Your task to perform on an android device: change keyboard looks Image 0: 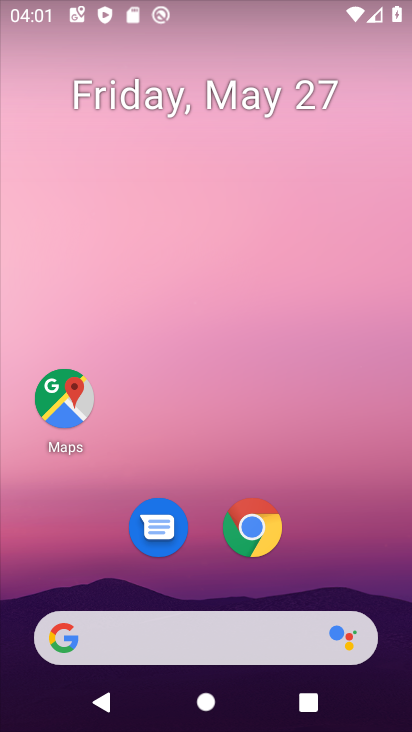
Step 0: drag from (353, 552) to (338, 88)
Your task to perform on an android device: change keyboard looks Image 1: 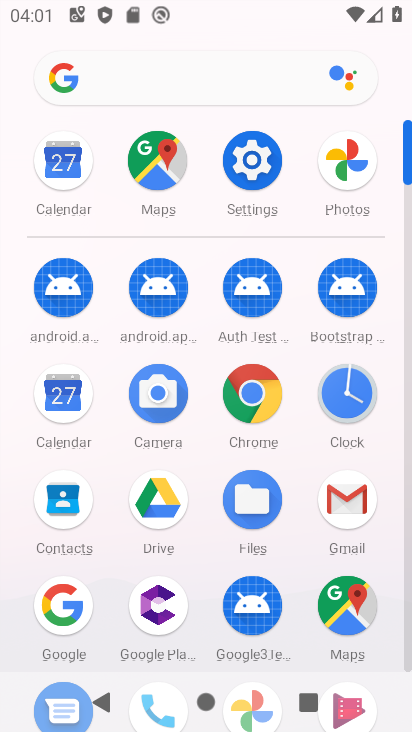
Step 1: click (410, 663)
Your task to perform on an android device: change keyboard looks Image 2: 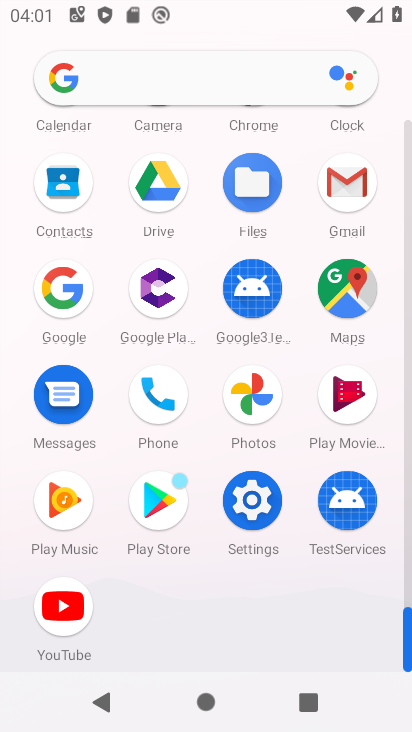
Step 2: click (251, 502)
Your task to perform on an android device: change keyboard looks Image 3: 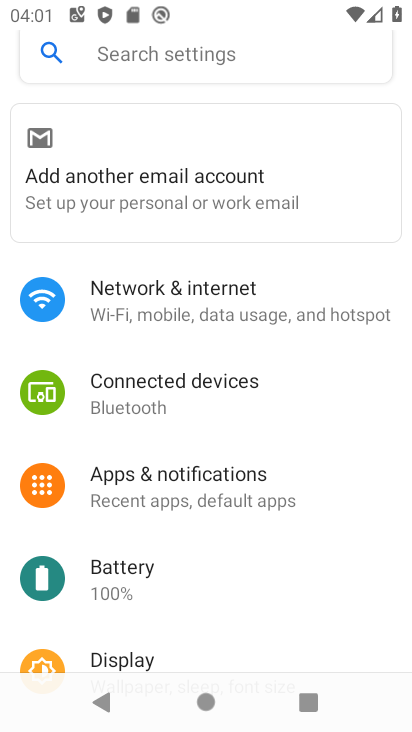
Step 3: drag from (226, 631) to (225, 19)
Your task to perform on an android device: change keyboard looks Image 4: 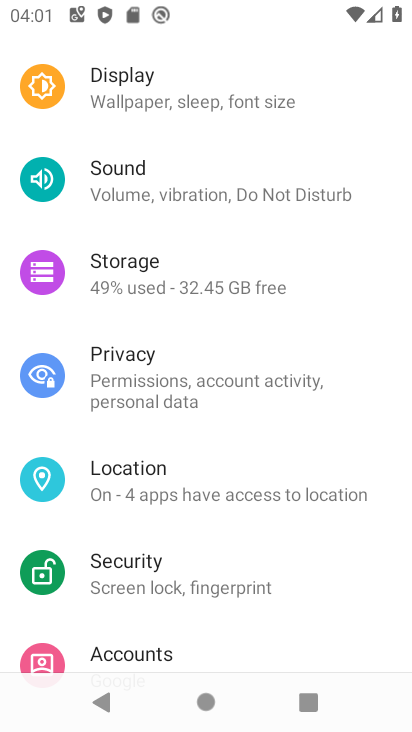
Step 4: drag from (241, 464) to (241, 103)
Your task to perform on an android device: change keyboard looks Image 5: 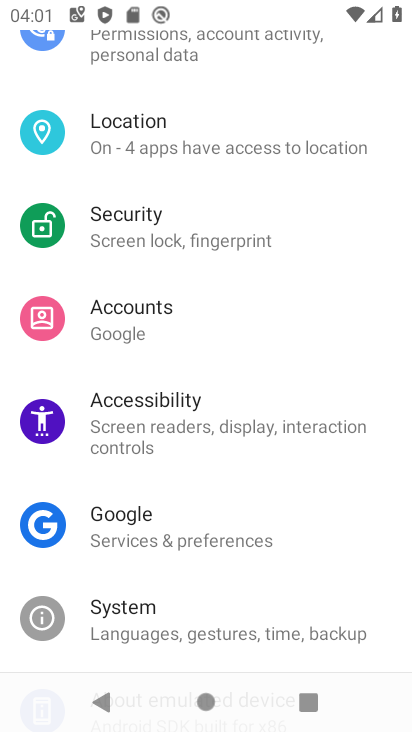
Step 5: drag from (240, 567) to (236, 235)
Your task to perform on an android device: change keyboard looks Image 6: 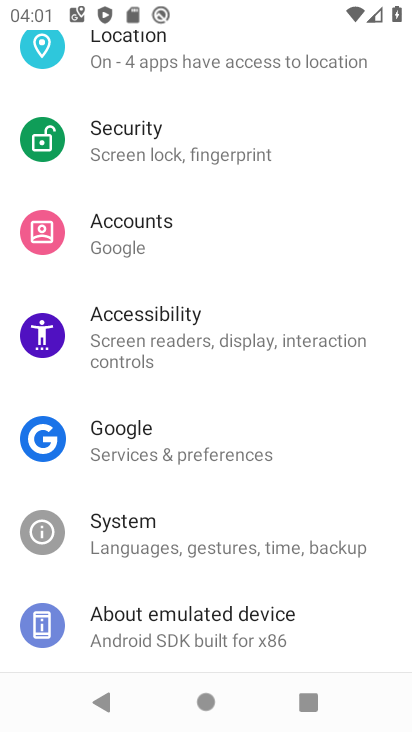
Step 6: click (180, 560)
Your task to perform on an android device: change keyboard looks Image 7: 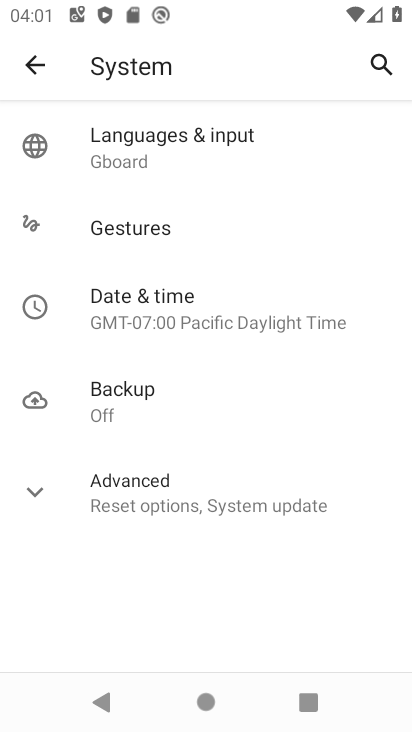
Step 7: click (166, 101)
Your task to perform on an android device: change keyboard looks Image 8: 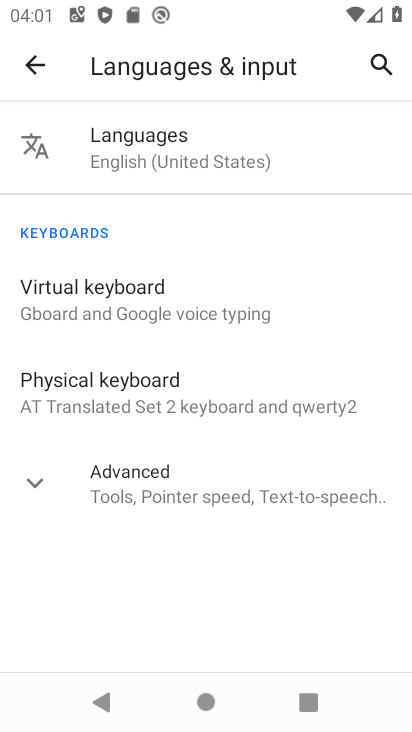
Step 8: click (188, 304)
Your task to perform on an android device: change keyboard looks Image 9: 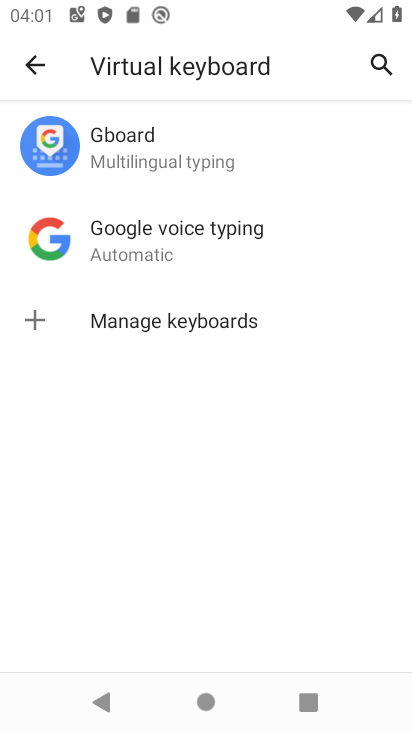
Step 9: click (170, 148)
Your task to perform on an android device: change keyboard looks Image 10: 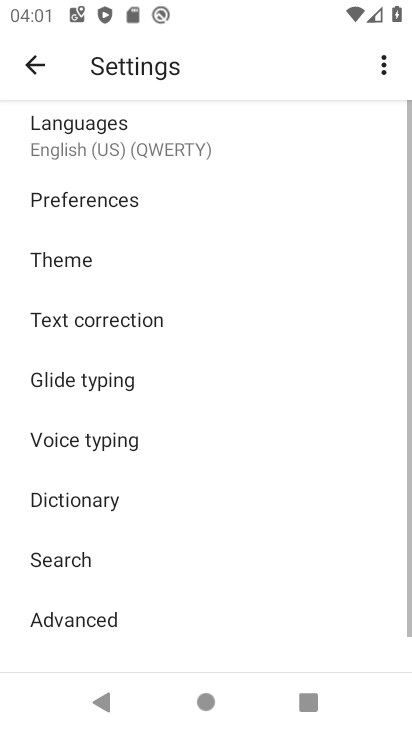
Step 10: click (157, 253)
Your task to perform on an android device: change keyboard looks Image 11: 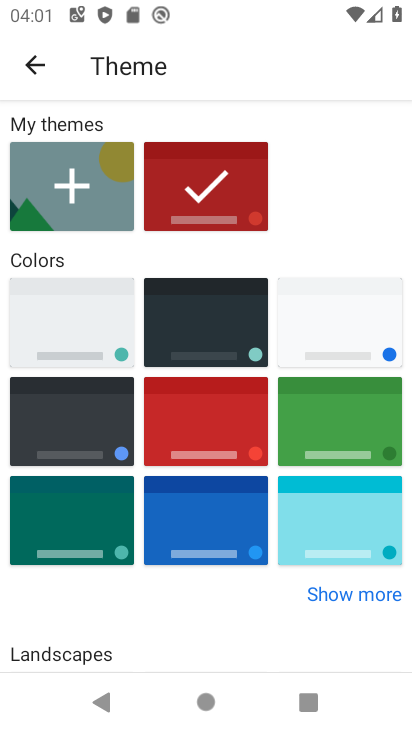
Step 11: click (180, 368)
Your task to perform on an android device: change keyboard looks Image 12: 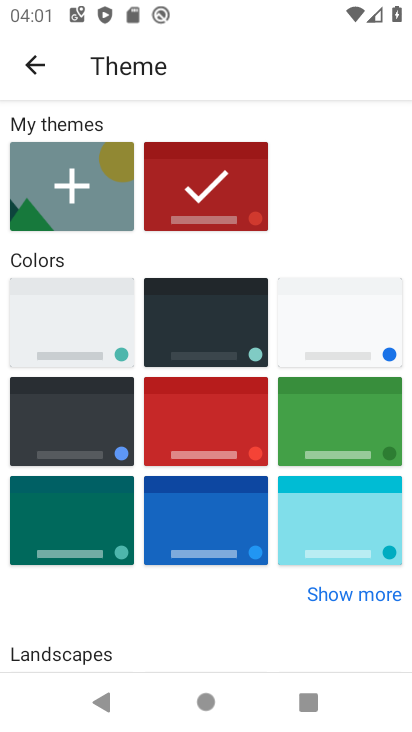
Step 12: click (189, 443)
Your task to perform on an android device: change keyboard looks Image 13: 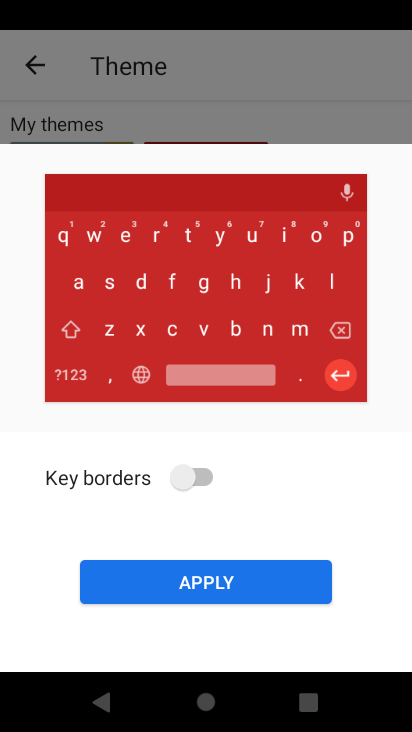
Step 13: click (196, 595)
Your task to perform on an android device: change keyboard looks Image 14: 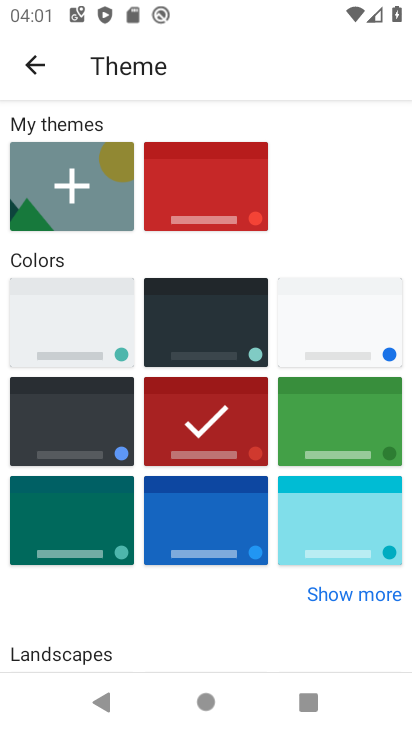
Step 14: task complete